Your task to perform on an android device: change notification settings in the gmail app Image 0: 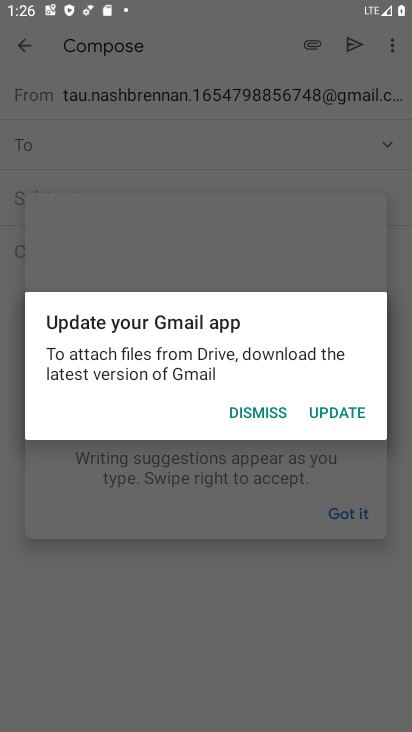
Step 0: press home button
Your task to perform on an android device: change notification settings in the gmail app Image 1: 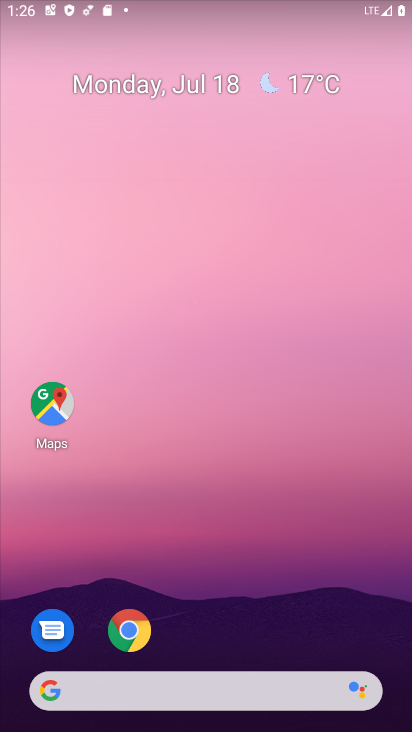
Step 1: click (241, 607)
Your task to perform on an android device: change notification settings in the gmail app Image 2: 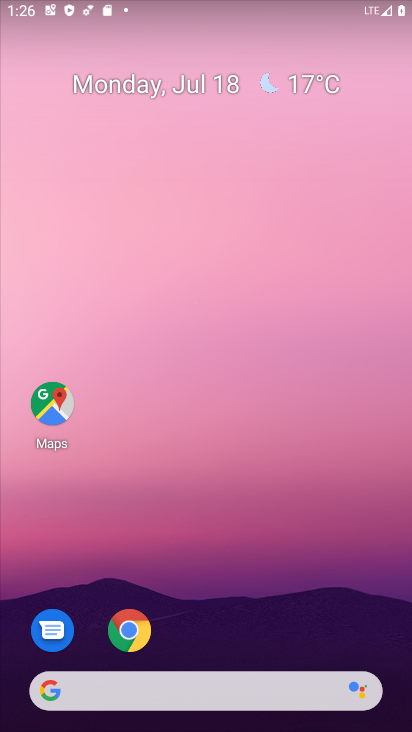
Step 2: drag from (241, 604) to (242, 29)
Your task to perform on an android device: change notification settings in the gmail app Image 3: 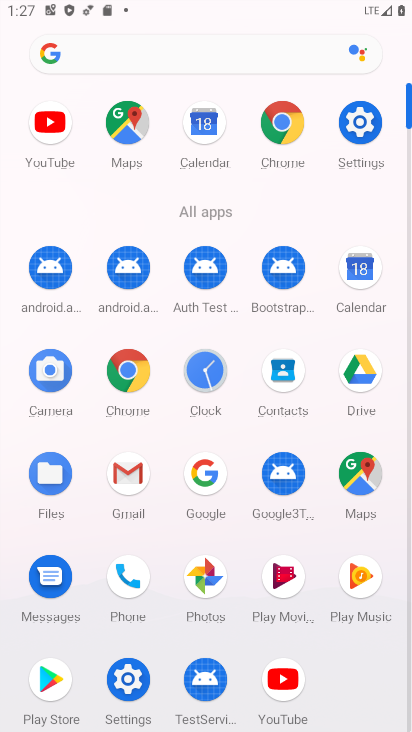
Step 3: click (124, 471)
Your task to perform on an android device: change notification settings in the gmail app Image 4: 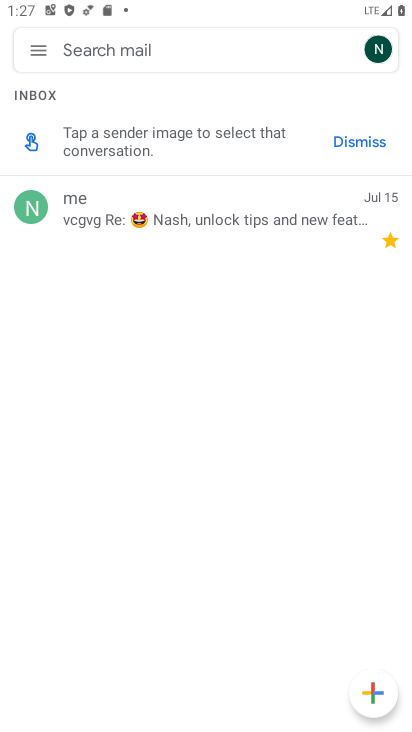
Step 4: click (40, 53)
Your task to perform on an android device: change notification settings in the gmail app Image 5: 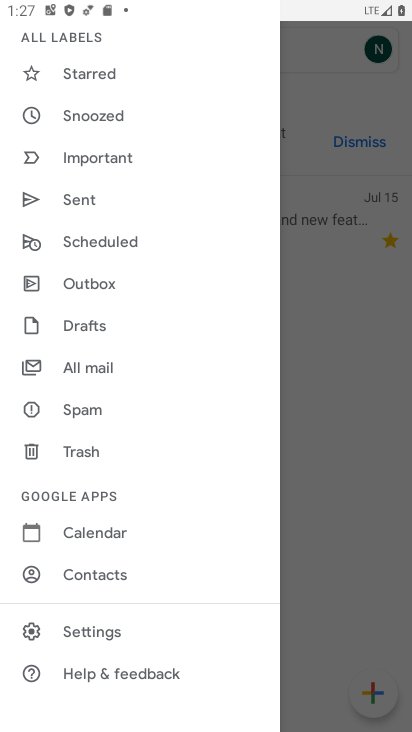
Step 5: click (111, 625)
Your task to perform on an android device: change notification settings in the gmail app Image 6: 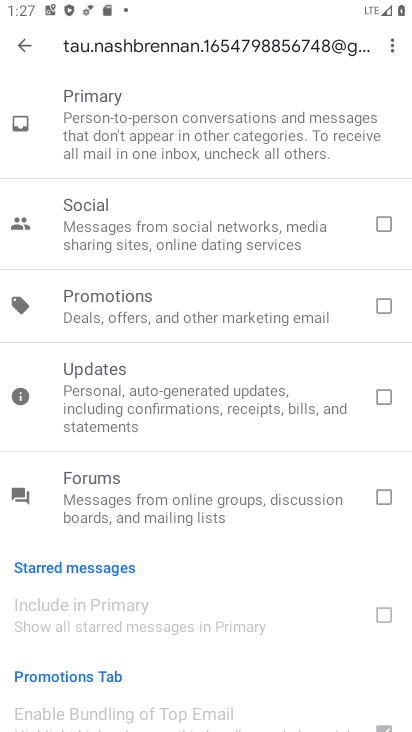
Step 6: drag from (191, 206) to (249, 585)
Your task to perform on an android device: change notification settings in the gmail app Image 7: 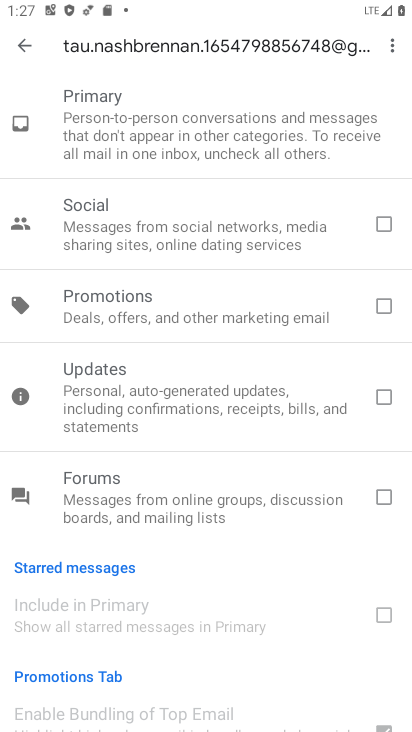
Step 7: click (25, 35)
Your task to perform on an android device: change notification settings in the gmail app Image 8: 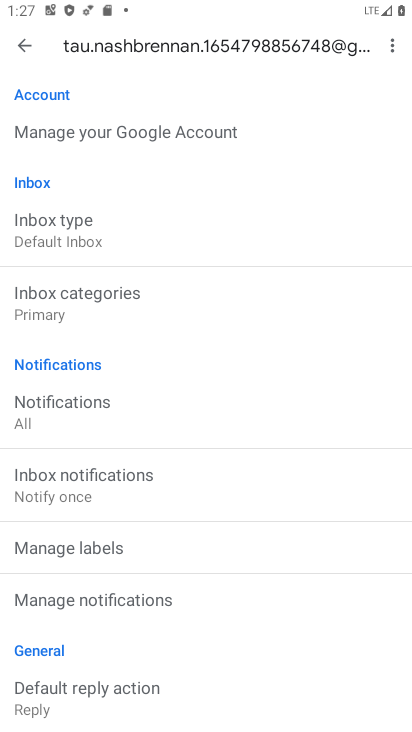
Step 8: click (208, 604)
Your task to perform on an android device: change notification settings in the gmail app Image 9: 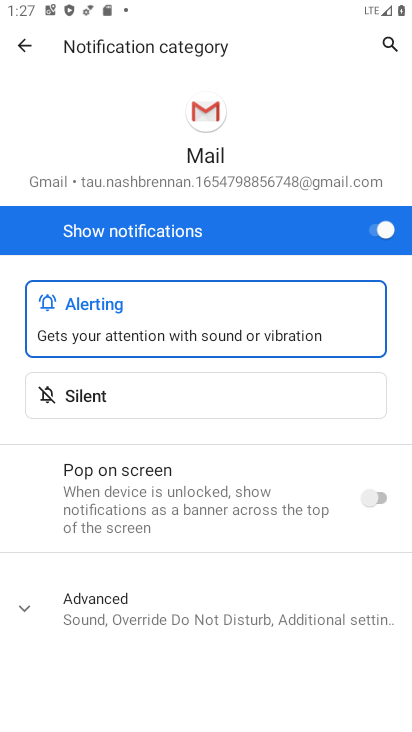
Step 9: click (376, 235)
Your task to perform on an android device: change notification settings in the gmail app Image 10: 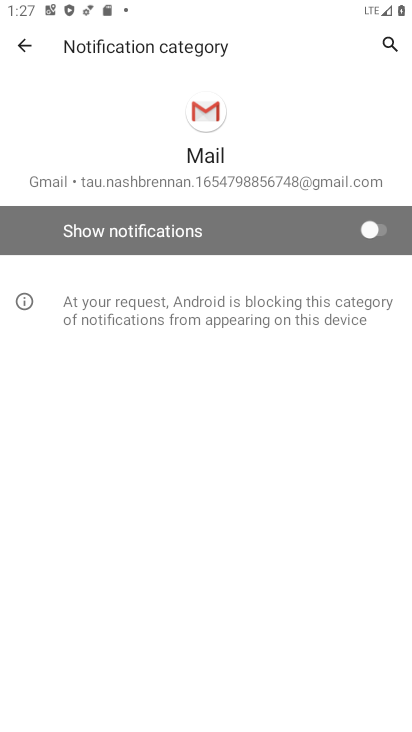
Step 10: task complete